Your task to perform on an android device: turn on notifications settings in the gmail app Image 0: 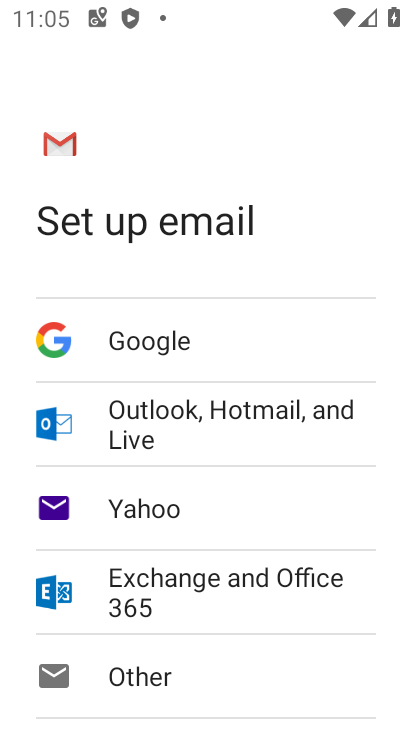
Step 0: press home button
Your task to perform on an android device: turn on notifications settings in the gmail app Image 1: 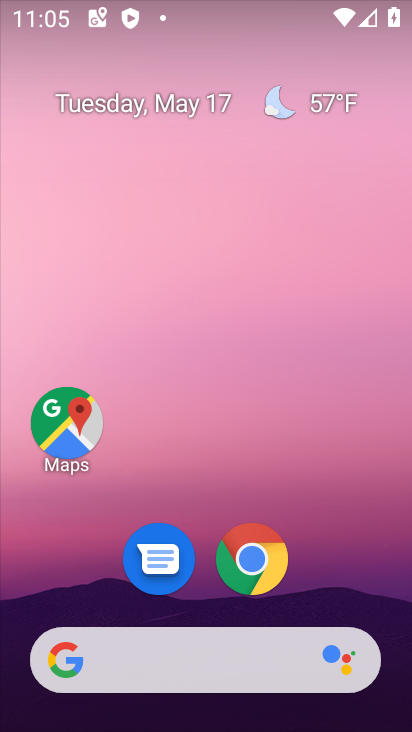
Step 1: drag from (366, 527) to (349, 44)
Your task to perform on an android device: turn on notifications settings in the gmail app Image 2: 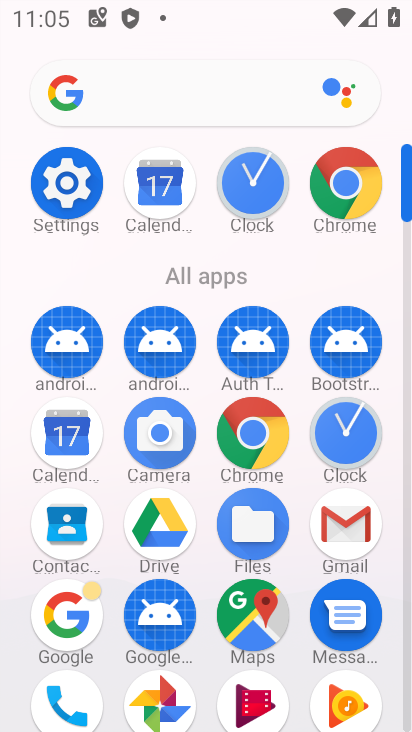
Step 2: click (342, 529)
Your task to perform on an android device: turn on notifications settings in the gmail app Image 3: 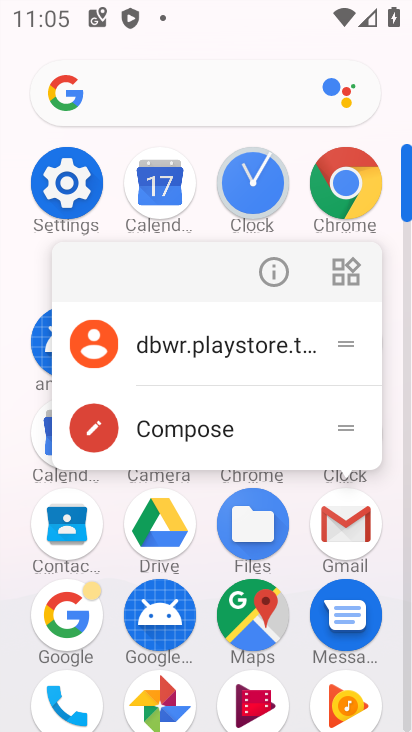
Step 3: click (266, 275)
Your task to perform on an android device: turn on notifications settings in the gmail app Image 4: 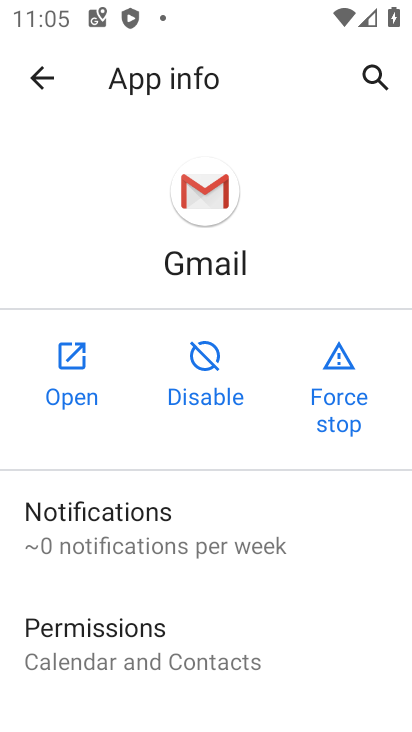
Step 4: click (218, 508)
Your task to perform on an android device: turn on notifications settings in the gmail app Image 5: 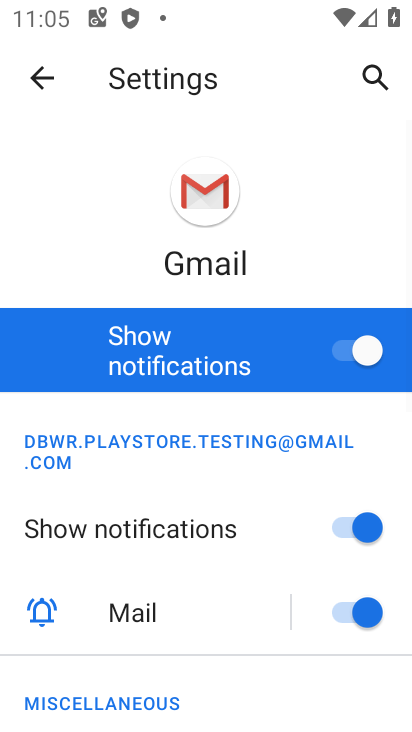
Step 5: task complete